Your task to perform on an android device: Search for the new steph curry shoes on Amazon. Image 0: 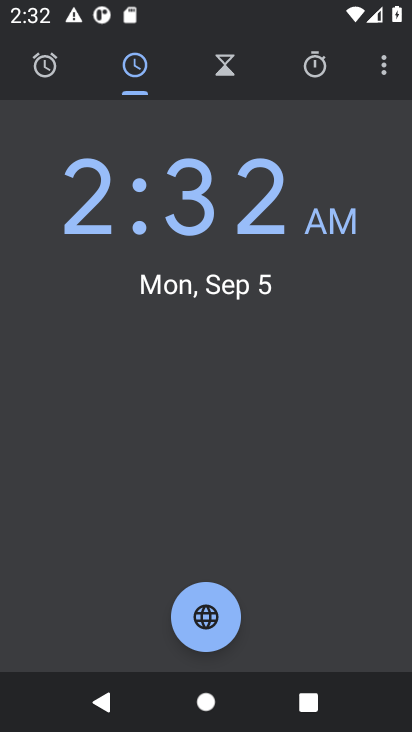
Step 0: press home button
Your task to perform on an android device: Search for the new steph curry shoes on Amazon. Image 1: 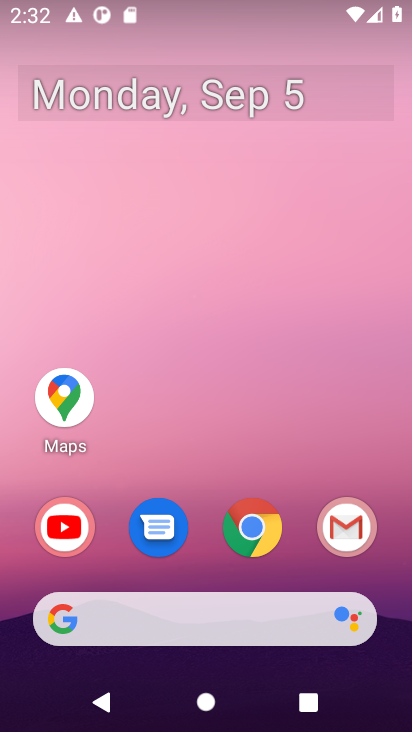
Step 1: click (253, 525)
Your task to perform on an android device: Search for the new steph curry shoes on Amazon. Image 2: 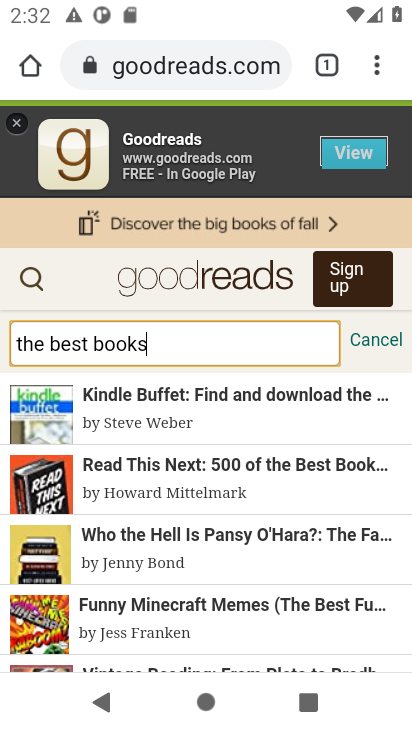
Step 2: click (222, 71)
Your task to perform on an android device: Search for the new steph curry shoes on Amazon. Image 3: 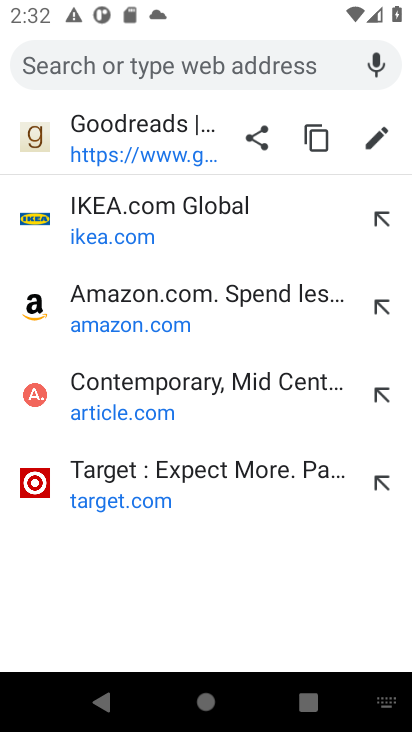
Step 3: type "Amazon"
Your task to perform on an android device: Search for the new steph curry shoes on Amazon. Image 4: 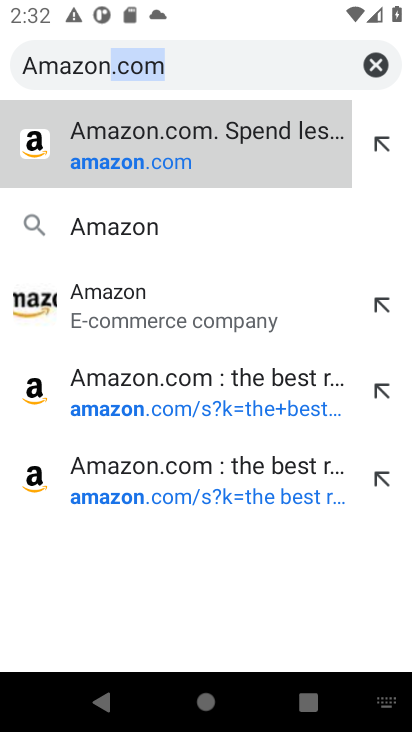
Step 4: click (139, 151)
Your task to perform on an android device: Search for the new steph curry shoes on Amazon. Image 5: 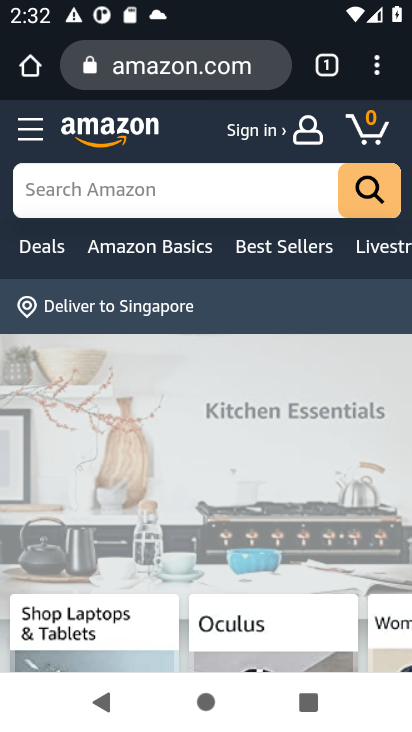
Step 5: click (185, 190)
Your task to perform on an android device: Search for the new steph curry shoes on Amazon. Image 6: 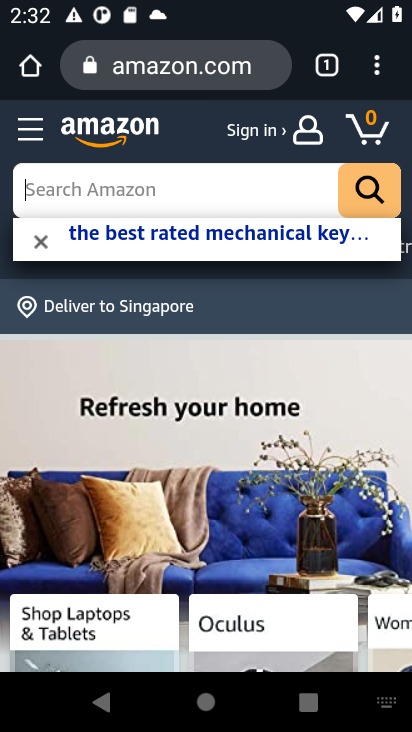
Step 6: type " the new steph curry shoes"
Your task to perform on an android device: Search for the new steph curry shoes on Amazon. Image 7: 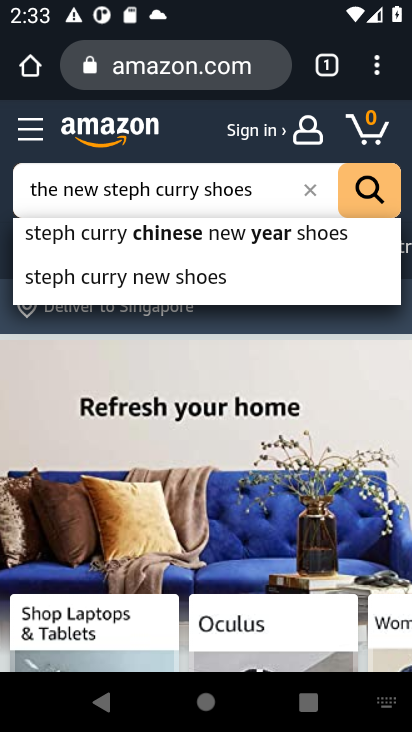
Step 7: click (361, 196)
Your task to perform on an android device: Search for the new steph curry shoes on Amazon. Image 8: 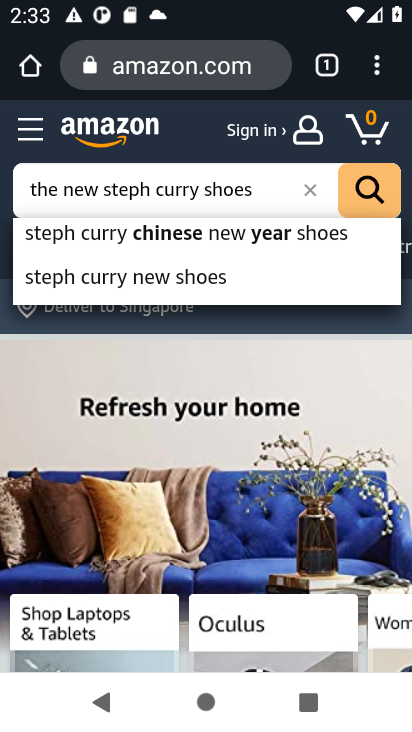
Step 8: click (381, 196)
Your task to perform on an android device: Search for the new steph curry shoes on Amazon. Image 9: 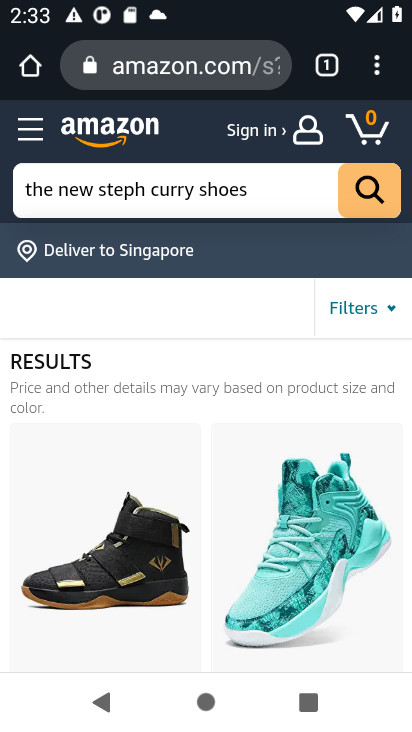
Step 9: task complete